Your task to perform on an android device: Go to wifi settings Image 0: 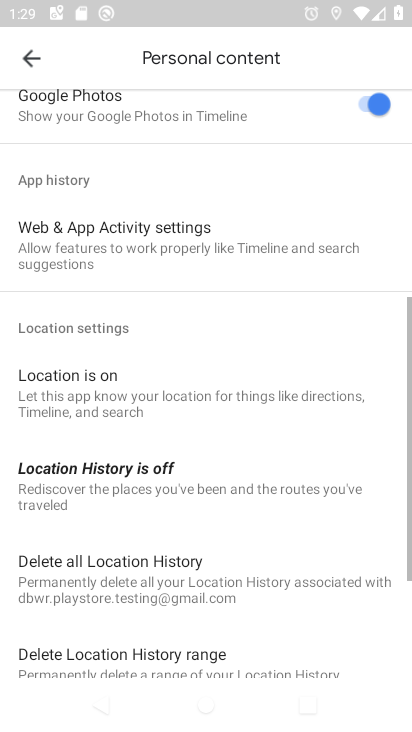
Step 0: press home button
Your task to perform on an android device: Go to wifi settings Image 1: 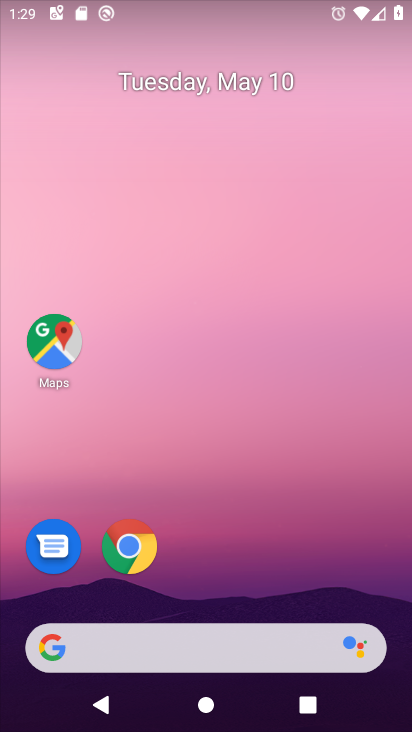
Step 1: drag from (327, 10) to (352, 693)
Your task to perform on an android device: Go to wifi settings Image 2: 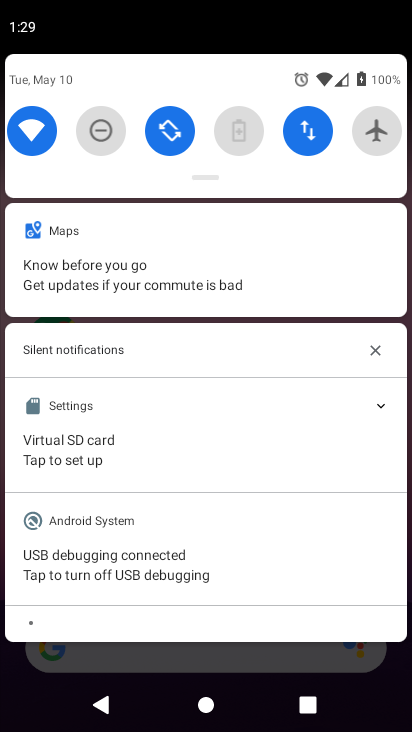
Step 2: click (37, 125)
Your task to perform on an android device: Go to wifi settings Image 3: 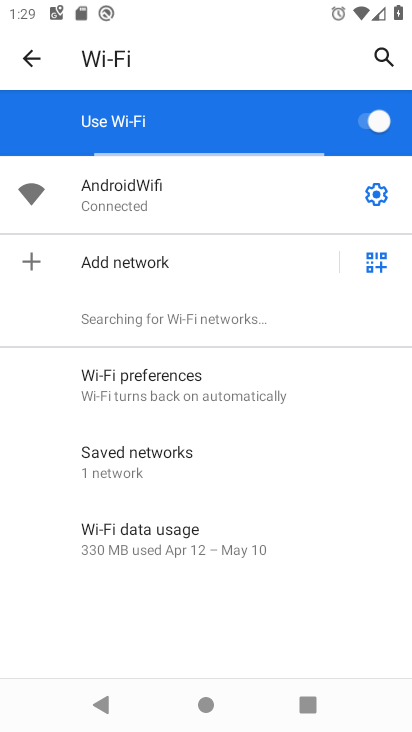
Step 3: task complete